Your task to perform on an android device: refresh tabs in the chrome app Image 0: 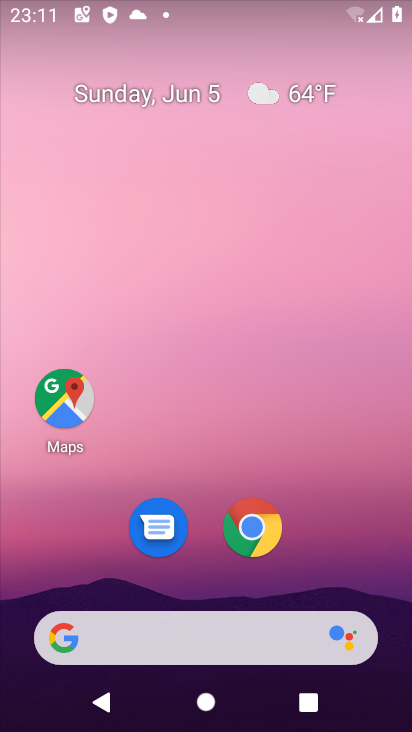
Step 0: click (250, 521)
Your task to perform on an android device: refresh tabs in the chrome app Image 1: 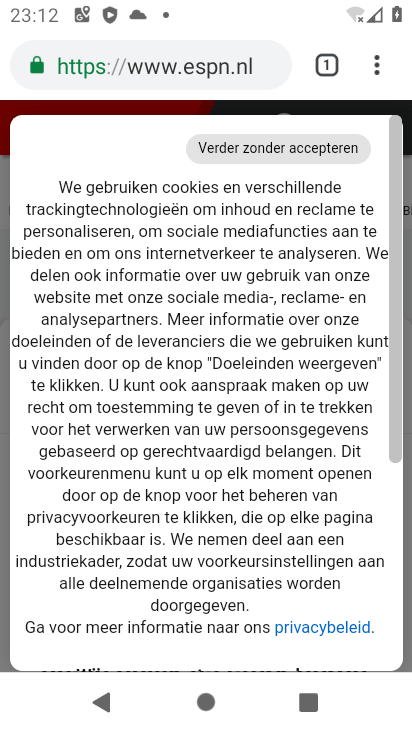
Step 1: click (377, 45)
Your task to perform on an android device: refresh tabs in the chrome app Image 2: 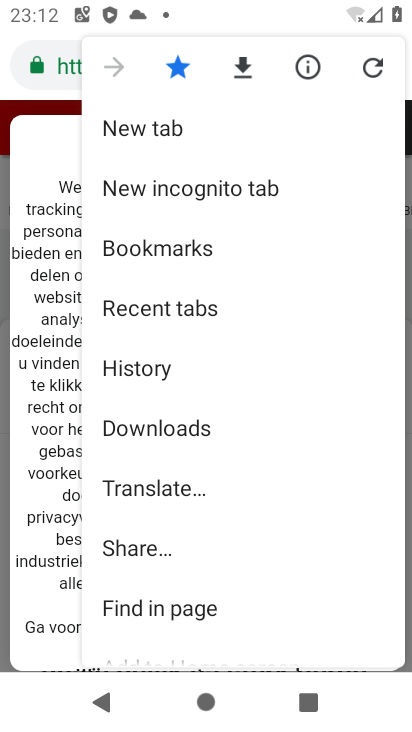
Step 2: click (372, 66)
Your task to perform on an android device: refresh tabs in the chrome app Image 3: 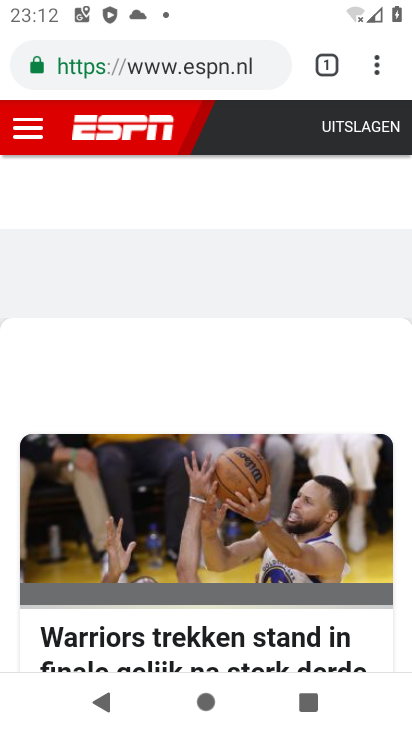
Step 3: task complete